Your task to perform on an android device: When is my next meeting? Image 0: 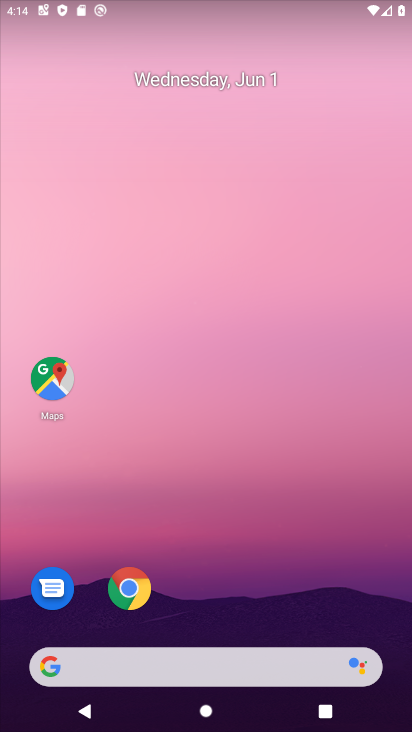
Step 0: drag from (293, 615) to (203, 236)
Your task to perform on an android device: When is my next meeting? Image 1: 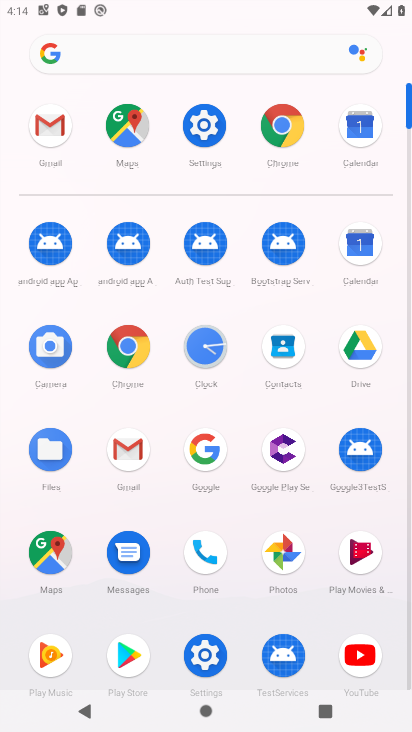
Step 1: click (366, 245)
Your task to perform on an android device: When is my next meeting? Image 2: 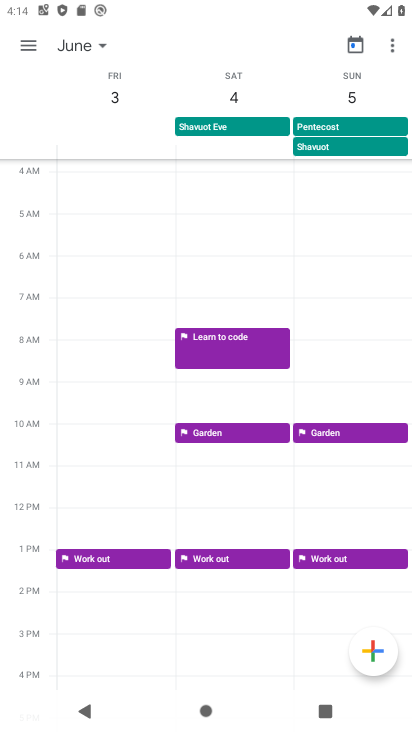
Step 2: drag from (112, 80) to (400, 80)
Your task to perform on an android device: When is my next meeting? Image 3: 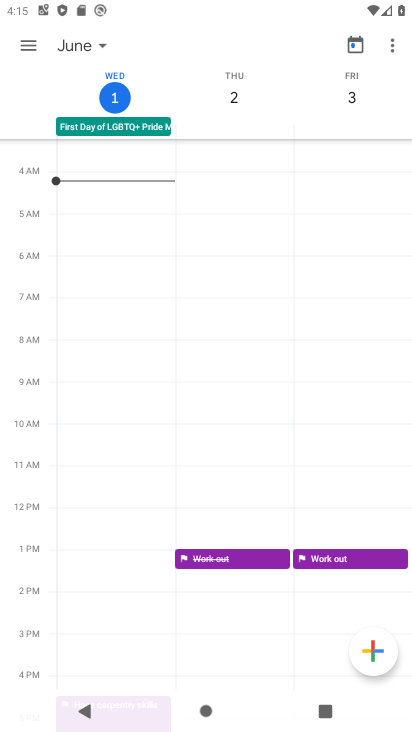
Step 3: click (23, 56)
Your task to perform on an android device: When is my next meeting? Image 4: 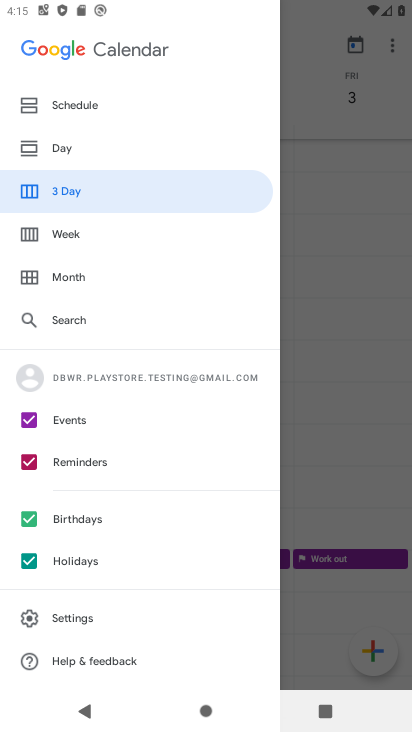
Step 4: click (77, 119)
Your task to perform on an android device: When is my next meeting? Image 5: 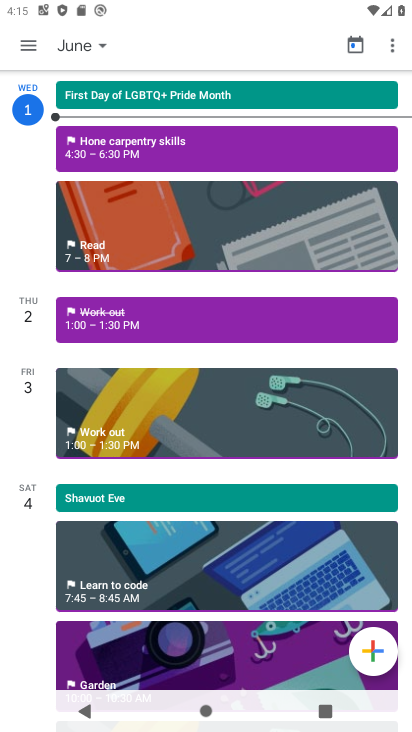
Step 5: task complete